Your task to perform on an android device: turn off smart reply in the gmail app Image 0: 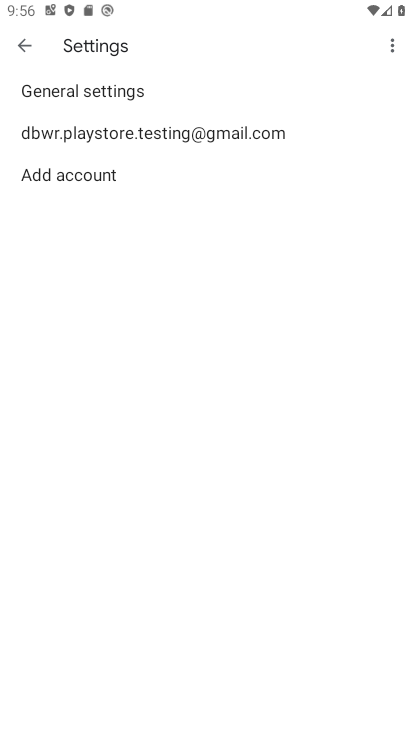
Step 0: press home button
Your task to perform on an android device: turn off smart reply in the gmail app Image 1: 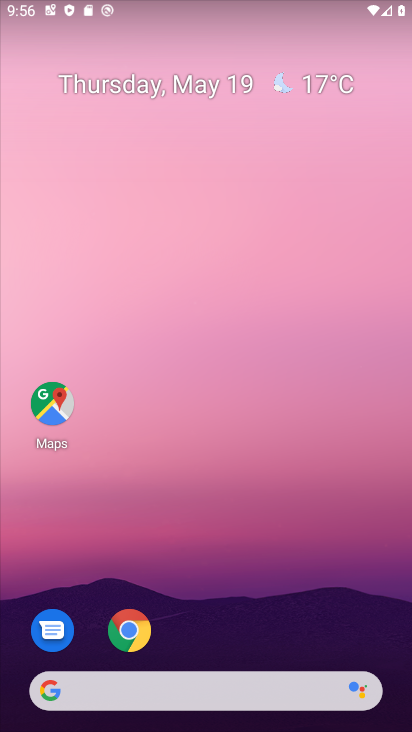
Step 1: drag from (240, 563) to (128, 67)
Your task to perform on an android device: turn off smart reply in the gmail app Image 2: 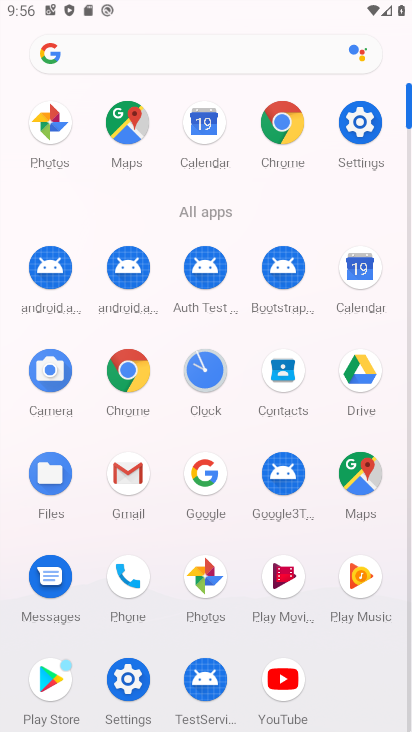
Step 2: click (126, 475)
Your task to perform on an android device: turn off smart reply in the gmail app Image 3: 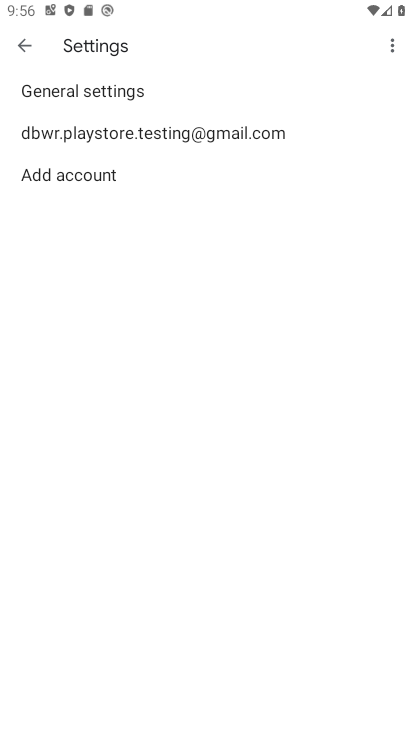
Step 3: click (71, 131)
Your task to perform on an android device: turn off smart reply in the gmail app Image 4: 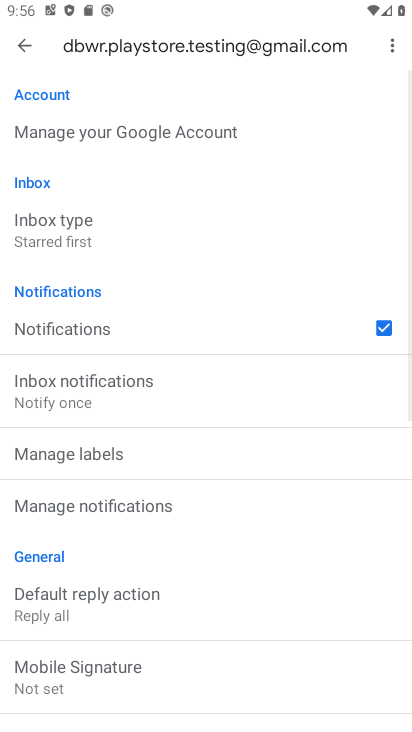
Step 4: drag from (224, 564) to (159, 207)
Your task to perform on an android device: turn off smart reply in the gmail app Image 5: 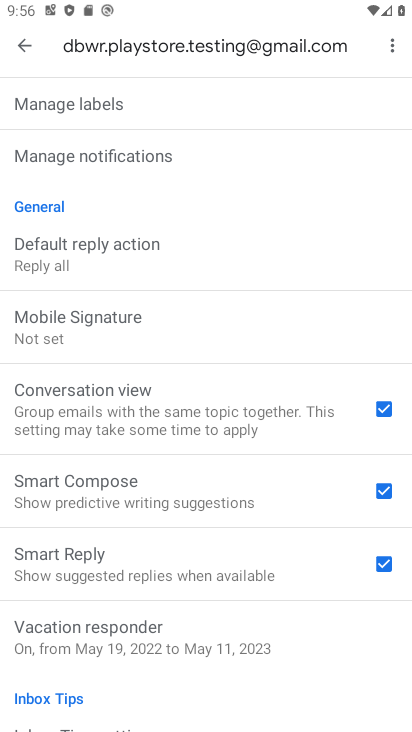
Step 5: click (383, 560)
Your task to perform on an android device: turn off smart reply in the gmail app Image 6: 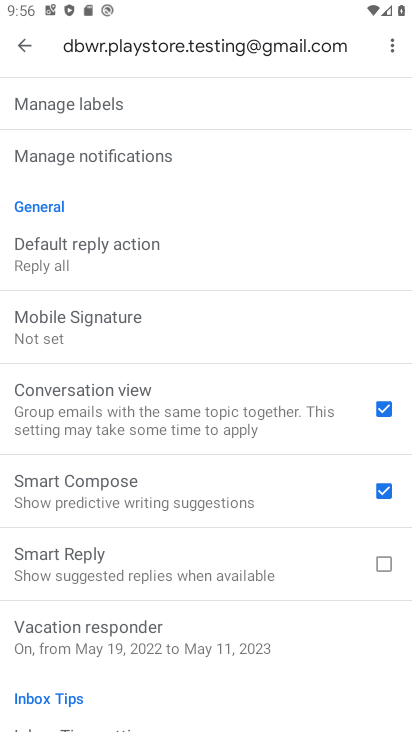
Step 6: task complete